Your task to perform on an android device: turn off location Image 0: 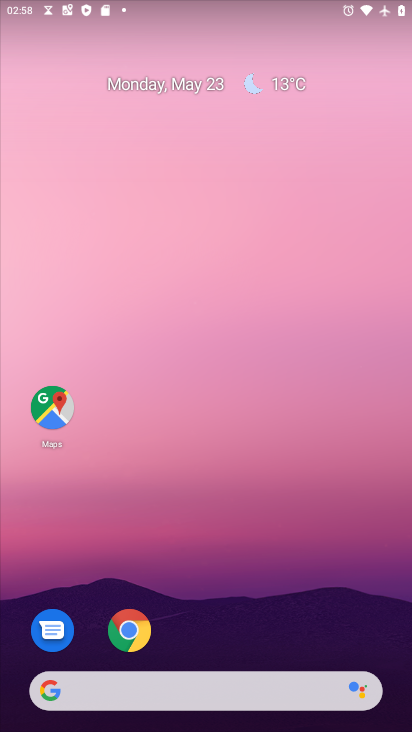
Step 0: drag from (283, 596) to (151, 20)
Your task to perform on an android device: turn off location Image 1: 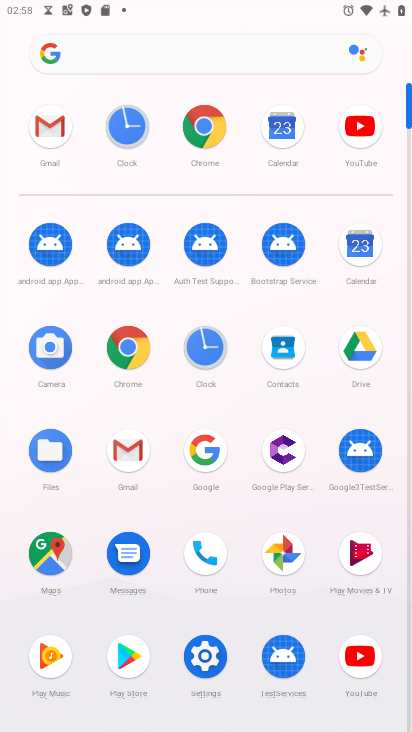
Step 1: click (212, 648)
Your task to perform on an android device: turn off location Image 2: 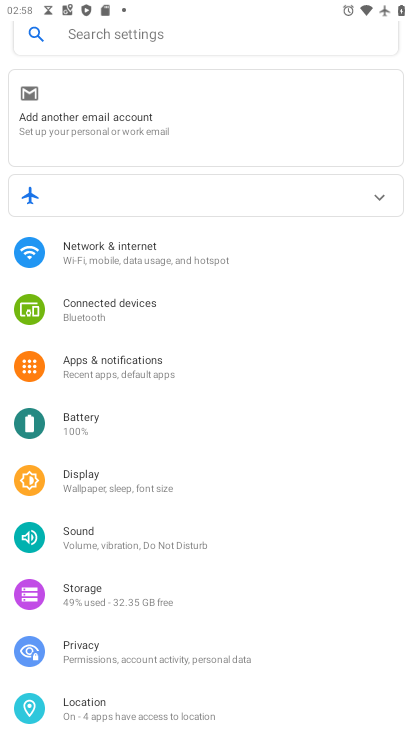
Step 2: click (180, 698)
Your task to perform on an android device: turn off location Image 3: 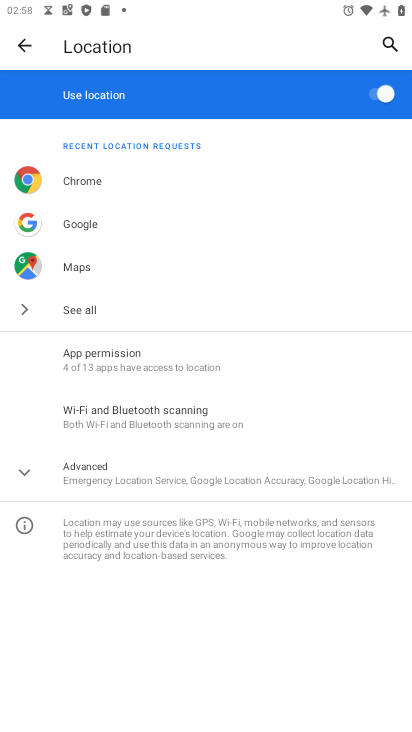
Step 3: click (378, 86)
Your task to perform on an android device: turn off location Image 4: 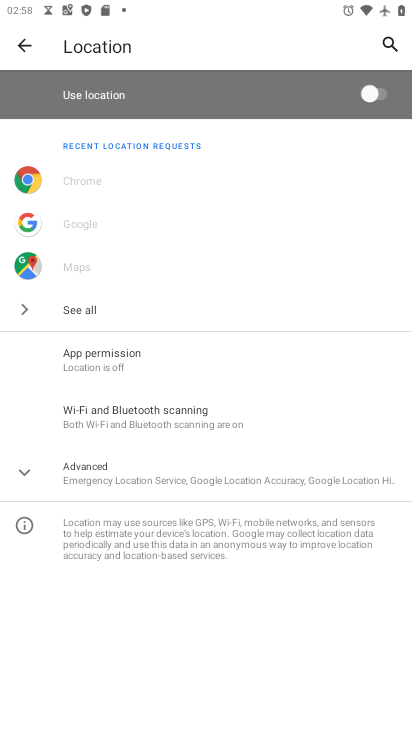
Step 4: task complete